Your task to perform on an android device: star an email in the gmail app Image 0: 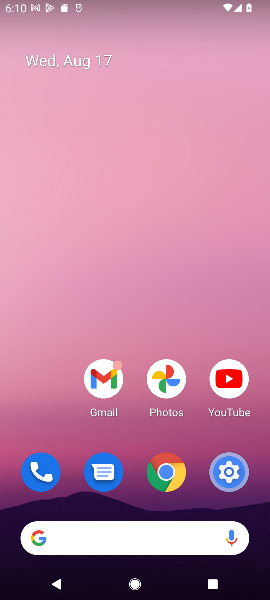
Step 0: click (100, 376)
Your task to perform on an android device: star an email in the gmail app Image 1: 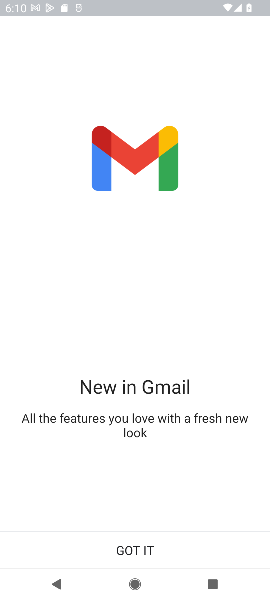
Step 1: click (131, 545)
Your task to perform on an android device: star an email in the gmail app Image 2: 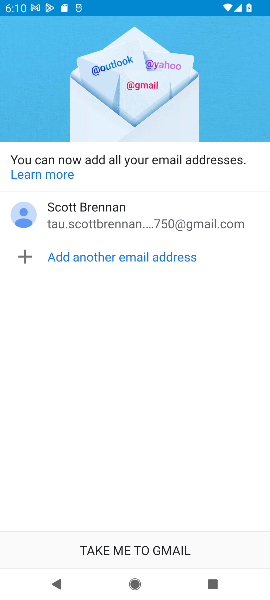
Step 2: click (139, 545)
Your task to perform on an android device: star an email in the gmail app Image 3: 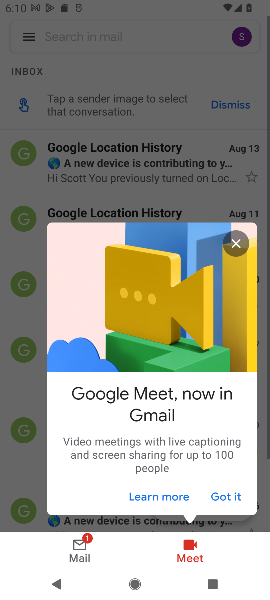
Step 3: click (241, 241)
Your task to perform on an android device: star an email in the gmail app Image 4: 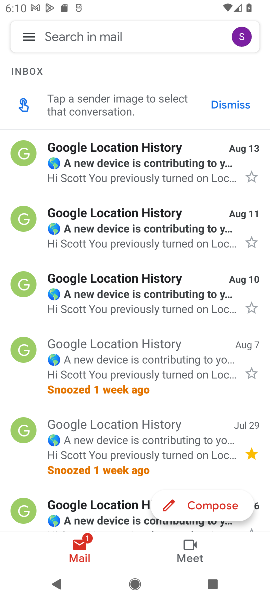
Step 4: click (253, 177)
Your task to perform on an android device: star an email in the gmail app Image 5: 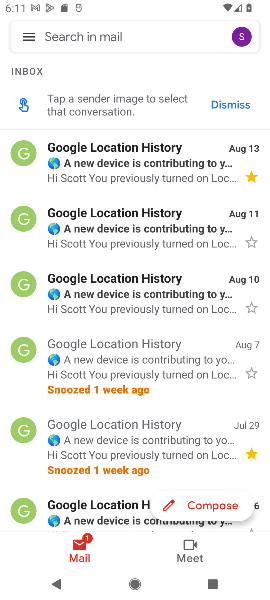
Step 5: task complete